Your task to perform on an android device: Search for razer naga on walmart.com, select the first entry, and add it to the cart. Image 0: 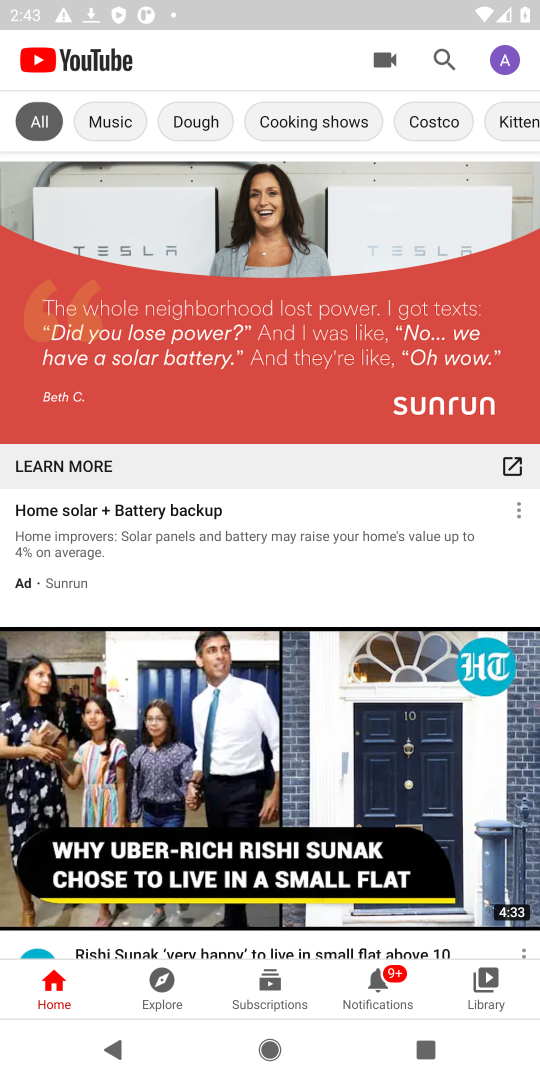
Step 0: press home button
Your task to perform on an android device: Search for razer naga on walmart.com, select the first entry, and add it to the cart. Image 1: 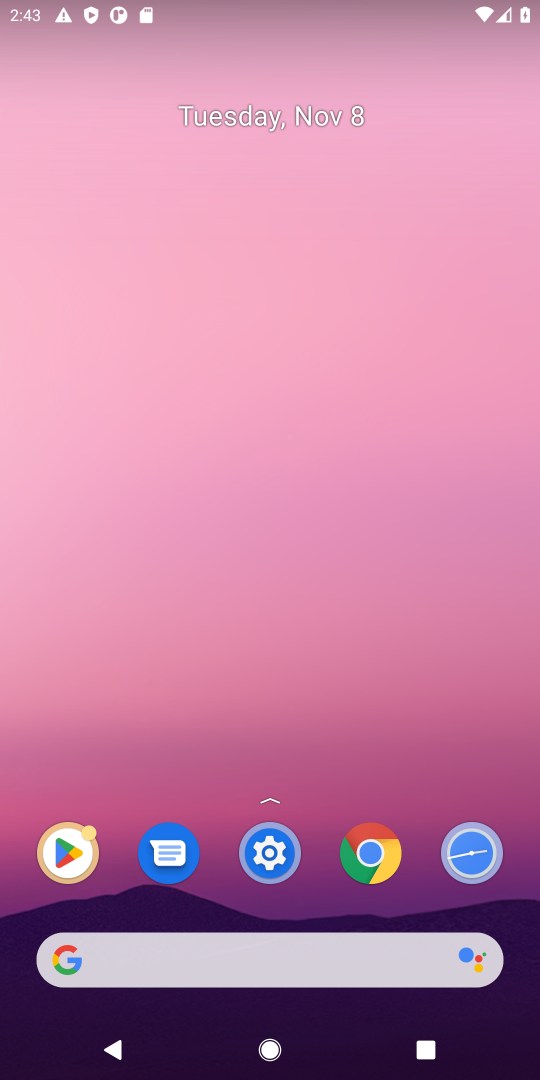
Step 1: click (373, 861)
Your task to perform on an android device: Search for razer naga on walmart.com, select the first entry, and add it to the cart. Image 2: 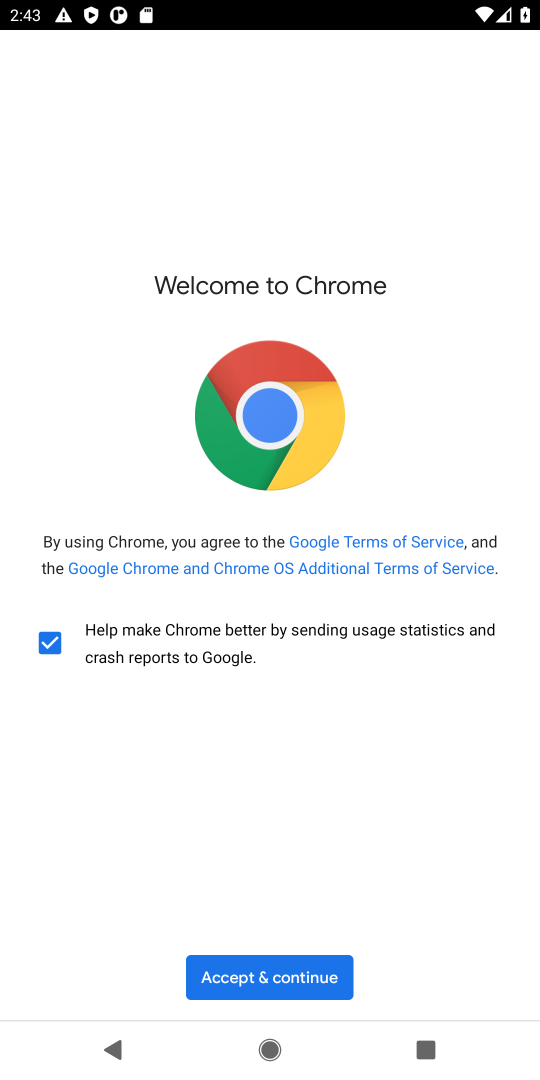
Step 2: click (295, 968)
Your task to perform on an android device: Search for razer naga on walmart.com, select the first entry, and add it to the cart. Image 3: 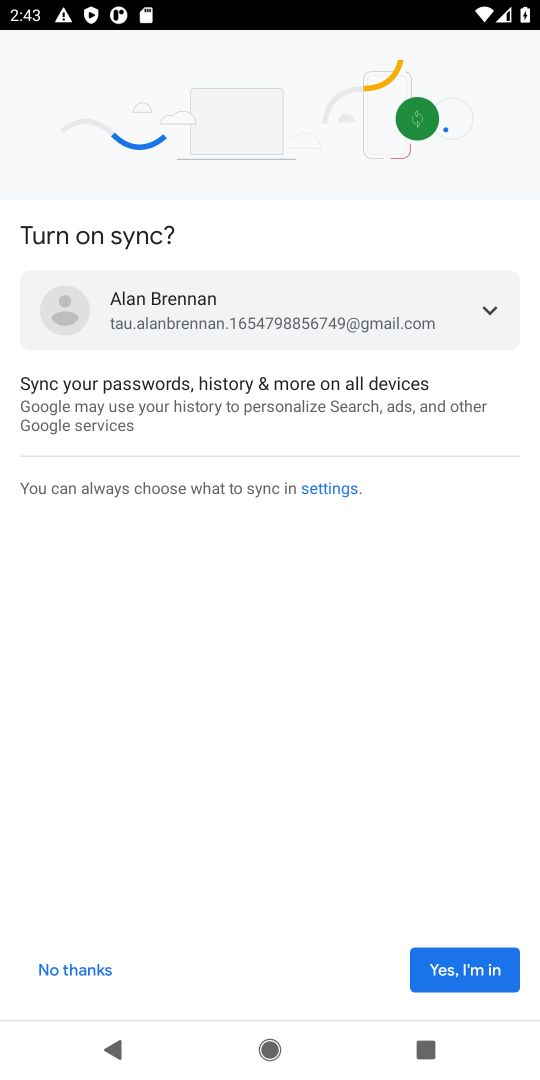
Step 3: click (455, 969)
Your task to perform on an android device: Search for razer naga on walmart.com, select the first entry, and add it to the cart. Image 4: 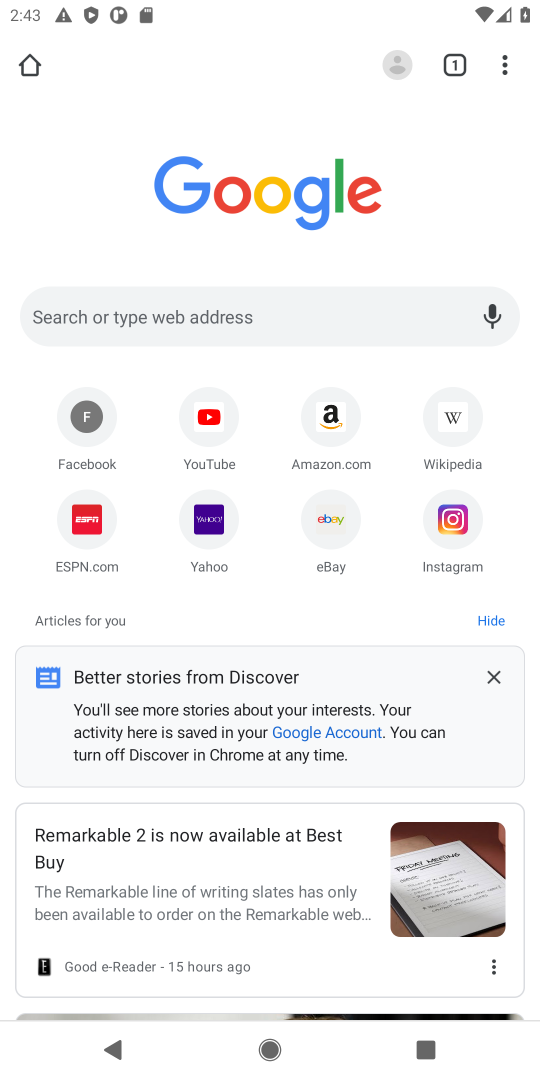
Step 4: click (372, 310)
Your task to perform on an android device: Search for razer naga on walmart.com, select the first entry, and add it to the cart. Image 5: 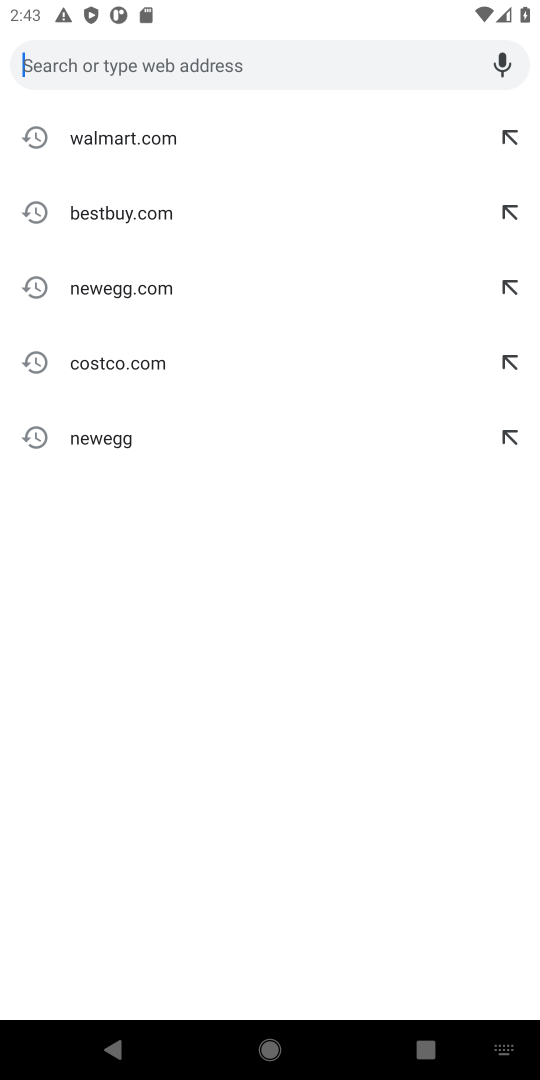
Step 5: click (115, 132)
Your task to perform on an android device: Search for razer naga on walmart.com, select the first entry, and add it to the cart. Image 6: 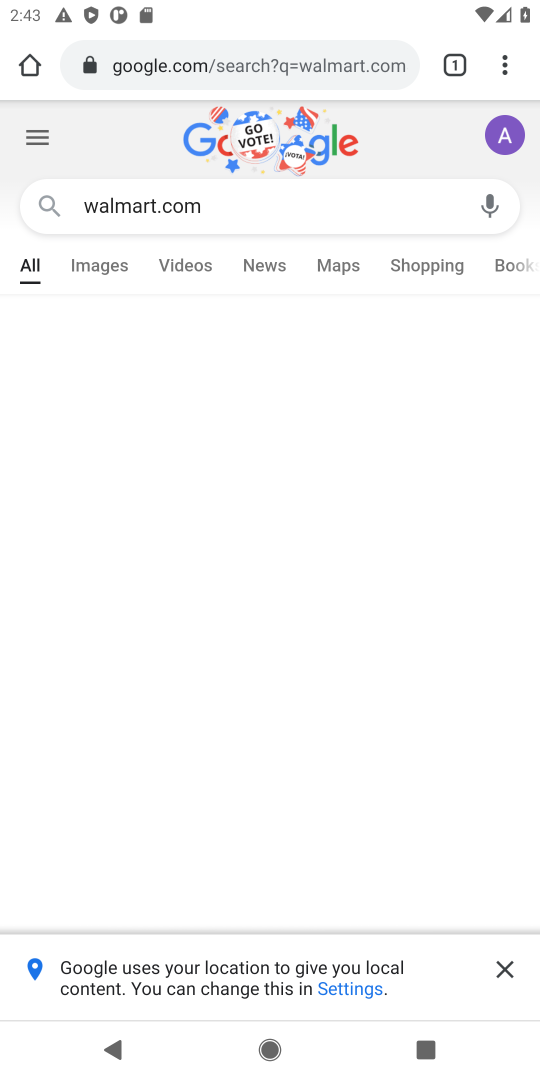
Step 6: click (506, 958)
Your task to perform on an android device: Search for razer naga on walmart.com, select the first entry, and add it to the cart. Image 7: 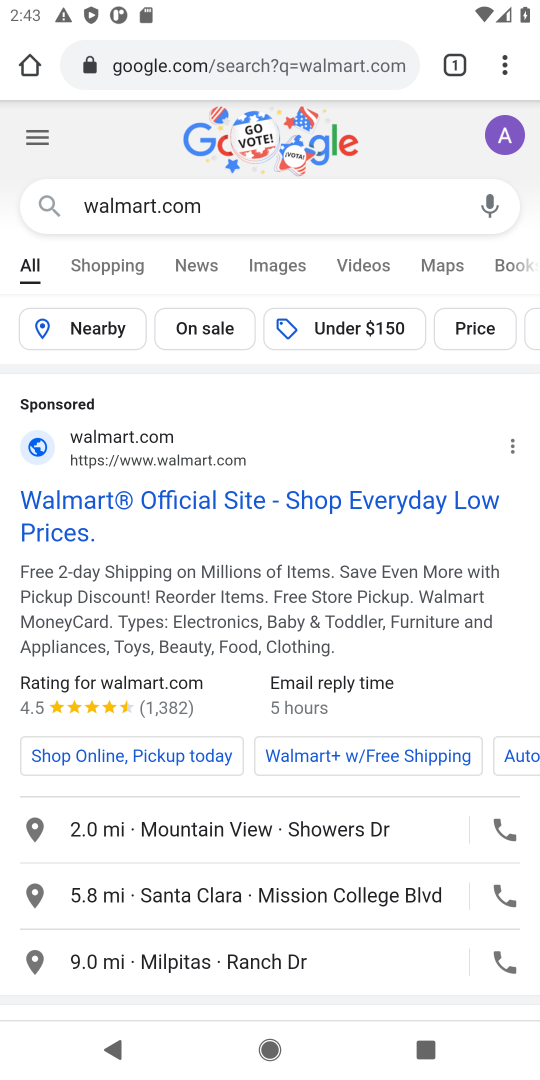
Step 7: click (174, 460)
Your task to perform on an android device: Search for razer naga on walmart.com, select the first entry, and add it to the cart. Image 8: 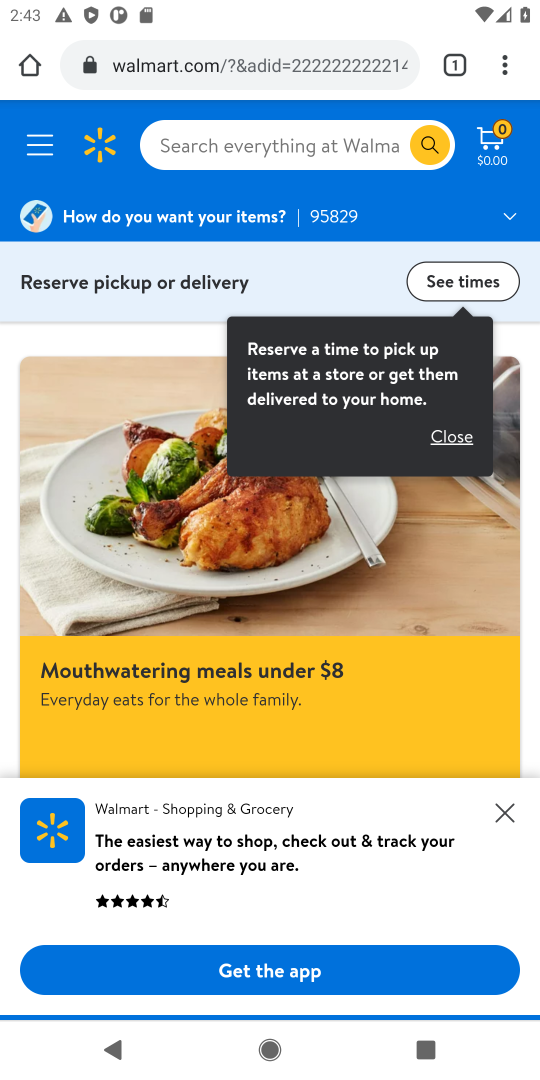
Step 8: click (326, 138)
Your task to perform on an android device: Search for razer naga on walmart.com, select the first entry, and add it to the cart. Image 9: 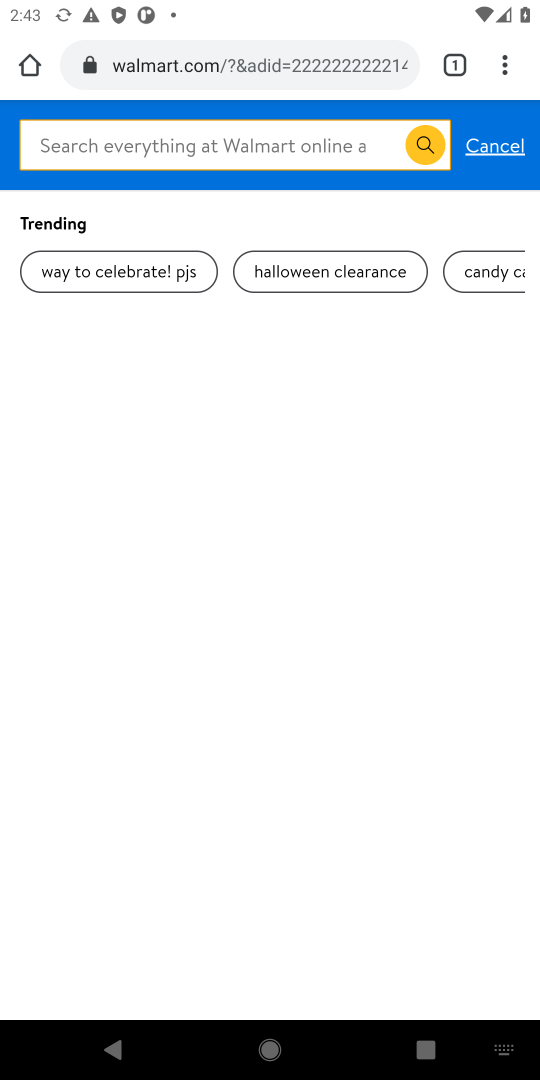
Step 9: type "razer naga"
Your task to perform on an android device: Search for razer naga on walmart.com, select the first entry, and add it to the cart. Image 10: 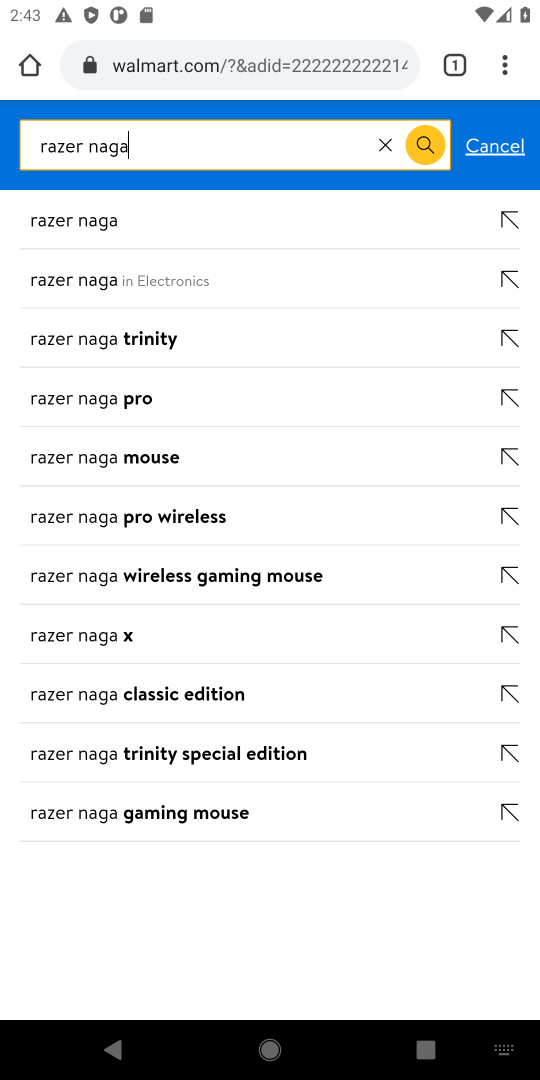
Step 10: click (91, 226)
Your task to perform on an android device: Search for razer naga on walmart.com, select the first entry, and add it to the cart. Image 11: 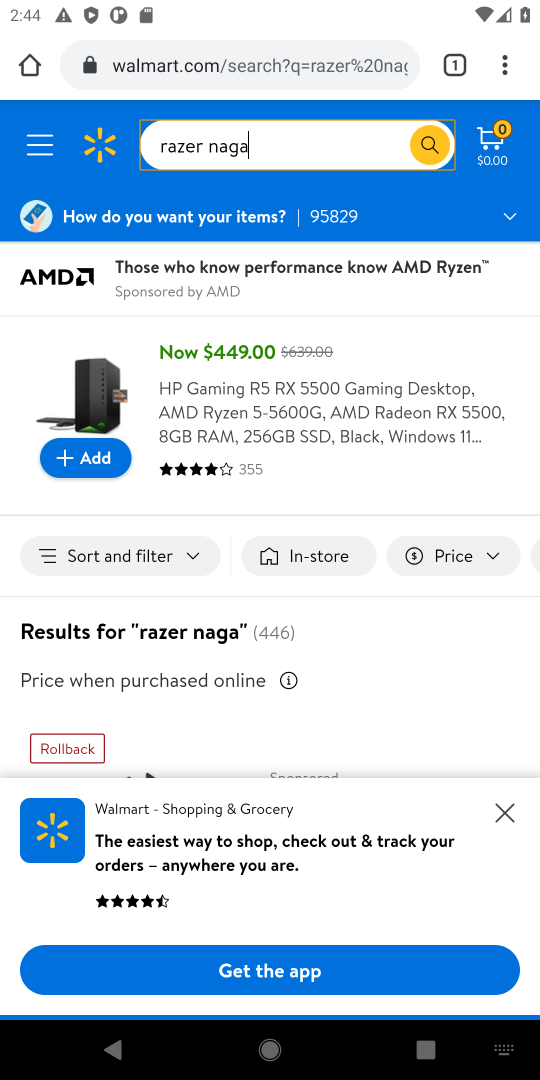
Step 11: drag from (383, 688) to (409, 302)
Your task to perform on an android device: Search for razer naga on walmart.com, select the first entry, and add it to the cart. Image 12: 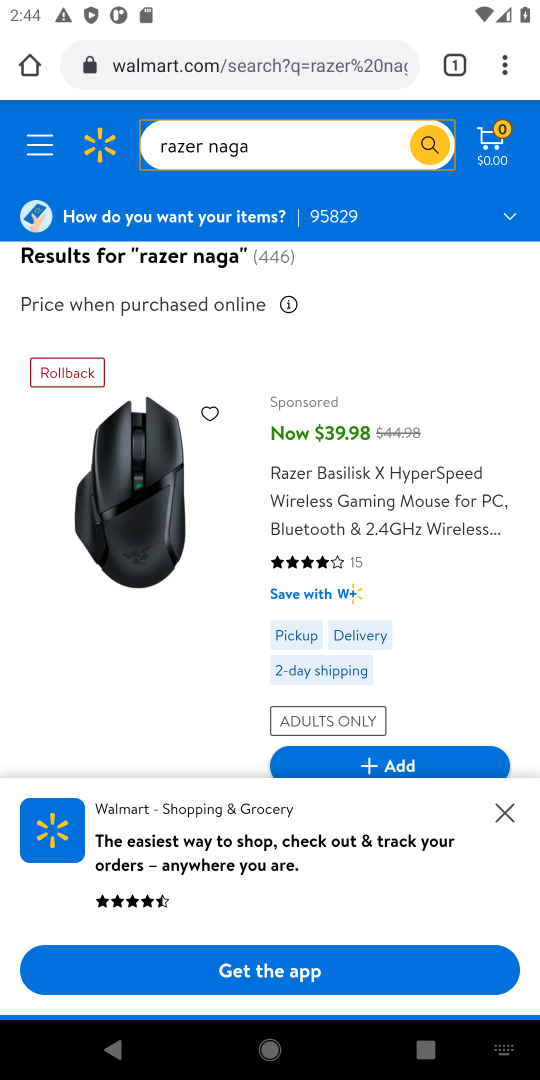
Step 12: drag from (125, 665) to (200, 388)
Your task to perform on an android device: Search for razer naga on walmart.com, select the first entry, and add it to the cart. Image 13: 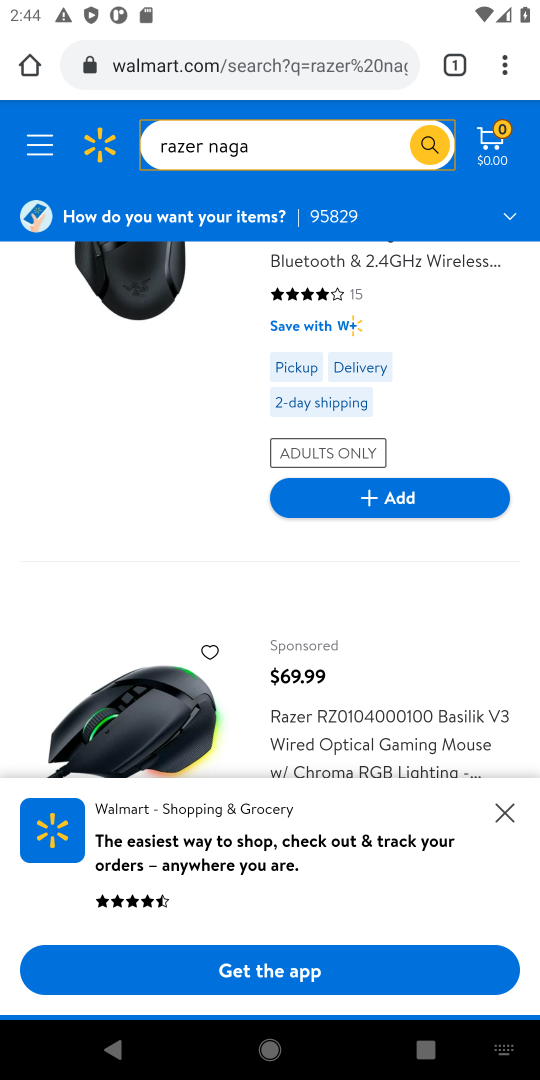
Step 13: drag from (381, 618) to (478, 294)
Your task to perform on an android device: Search for razer naga on walmart.com, select the first entry, and add it to the cart. Image 14: 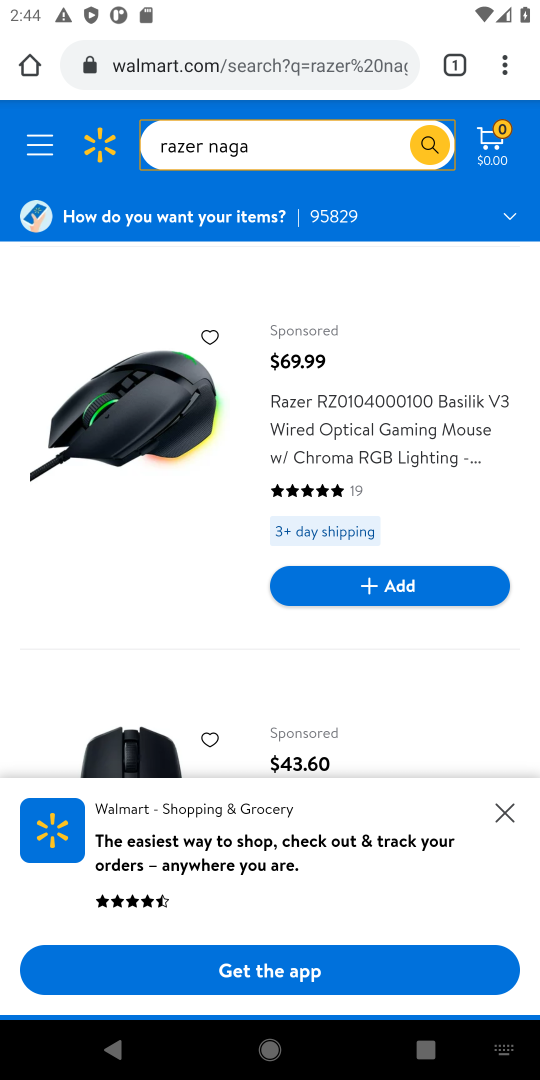
Step 14: drag from (421, 709) to (403, 312)
Your task to perform on an android device: Search for razer naga on walmart.com, select the first entry, and add it to the cart. Image 15: 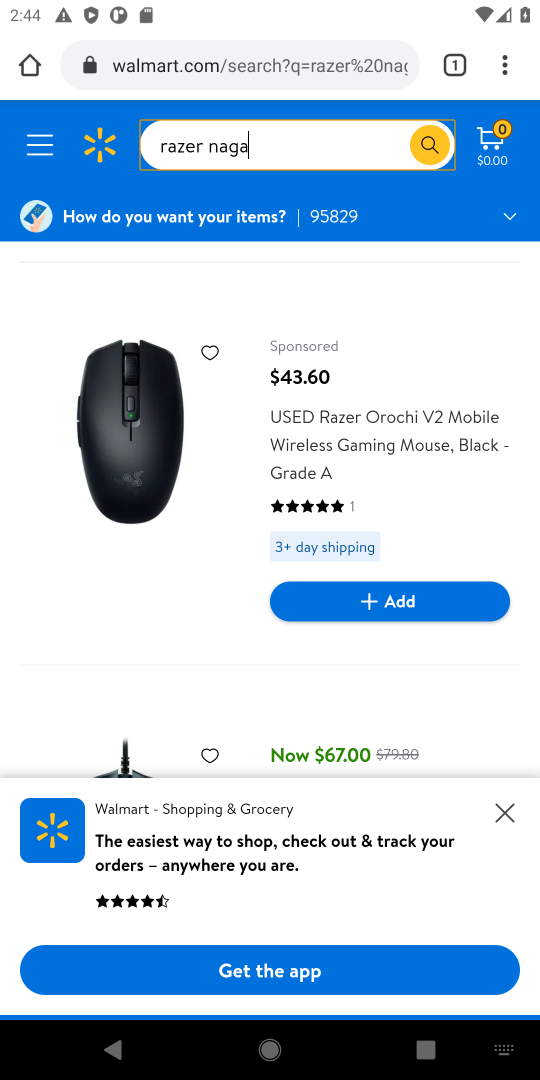
Step 15: drag from (132, 557) to (235, 178)
Your task to perform on an android device: Search for razer naga on walmart.com, select the first entry, and add it to the cart. Image 16: 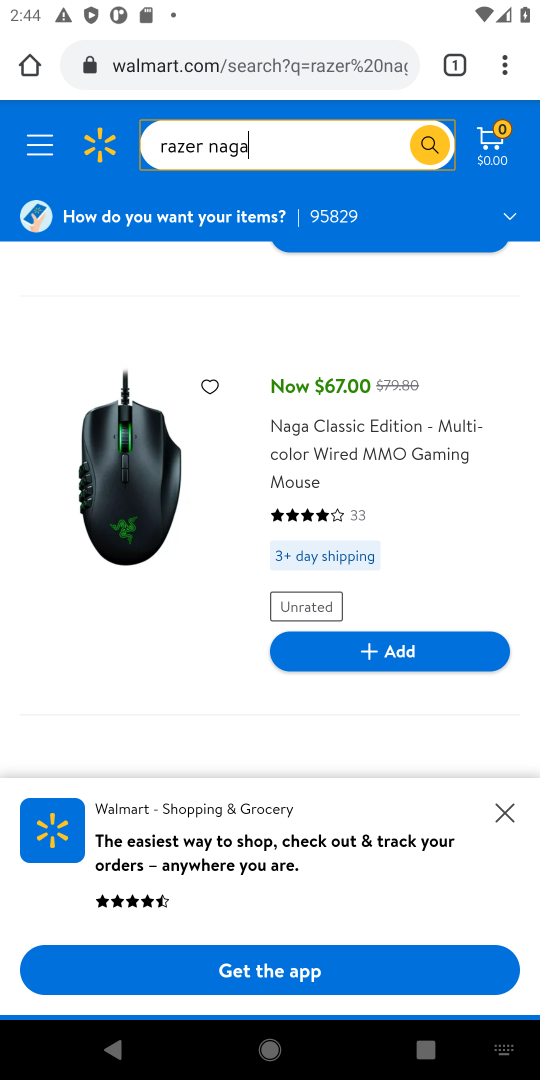
Step 16: drag from (173, 530) to (203, 258)
Your task to perform on an android device: Search for razer naga on walmart.com, select the first entry, and add it to the cart. Image 17: 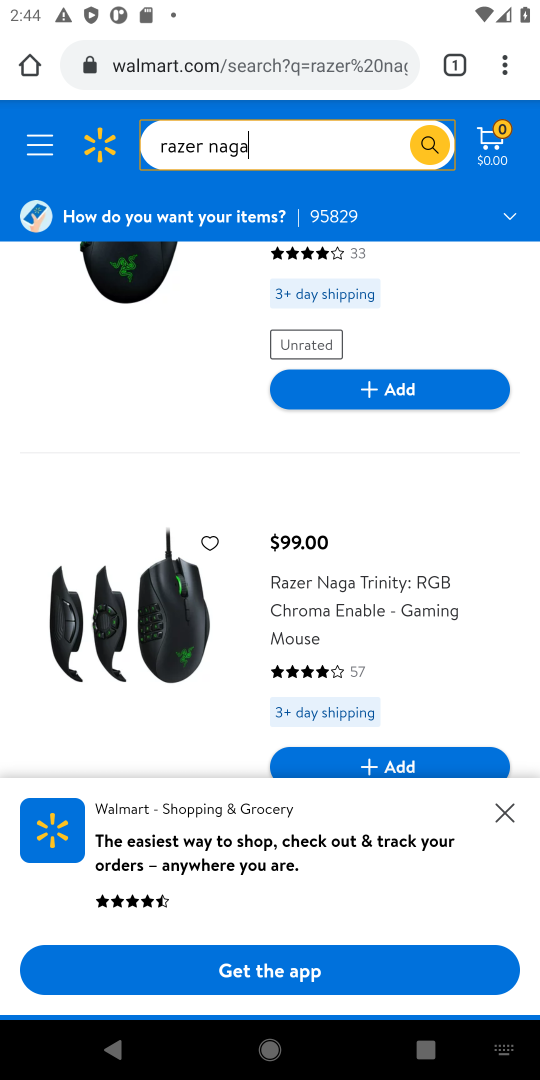
Step 17: click (150, 596)
Your task to perform on an android device: Search for razer naga on walmart.com, select the first entry, and add it to the cart. Image 18: 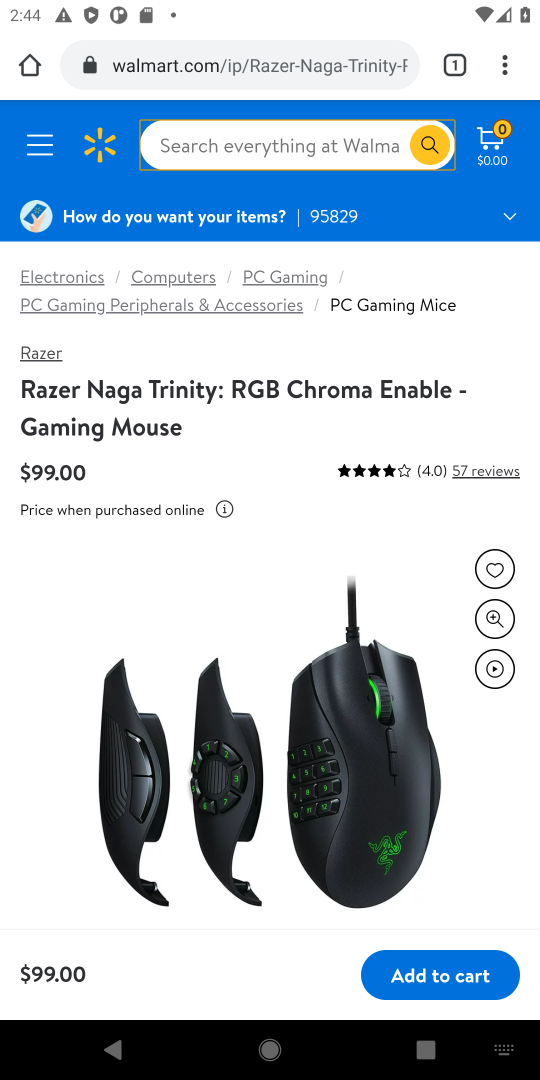
Step 18: click (421, 978)
Your task to perform on an android device: Search for razer naga on walmart.com, select the first entry, and add it to the cart. Image 19: 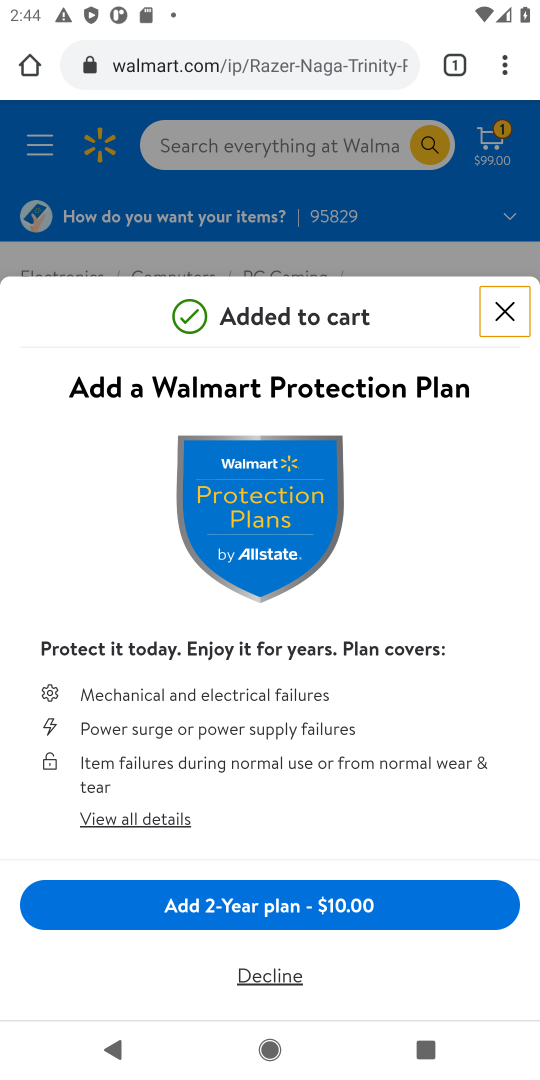
Step 19: task complete